Your task to perform on an android device: Clear the shopping cart on walmart. Add asus rog to the cart on walmart, then select checkout. Image 0: 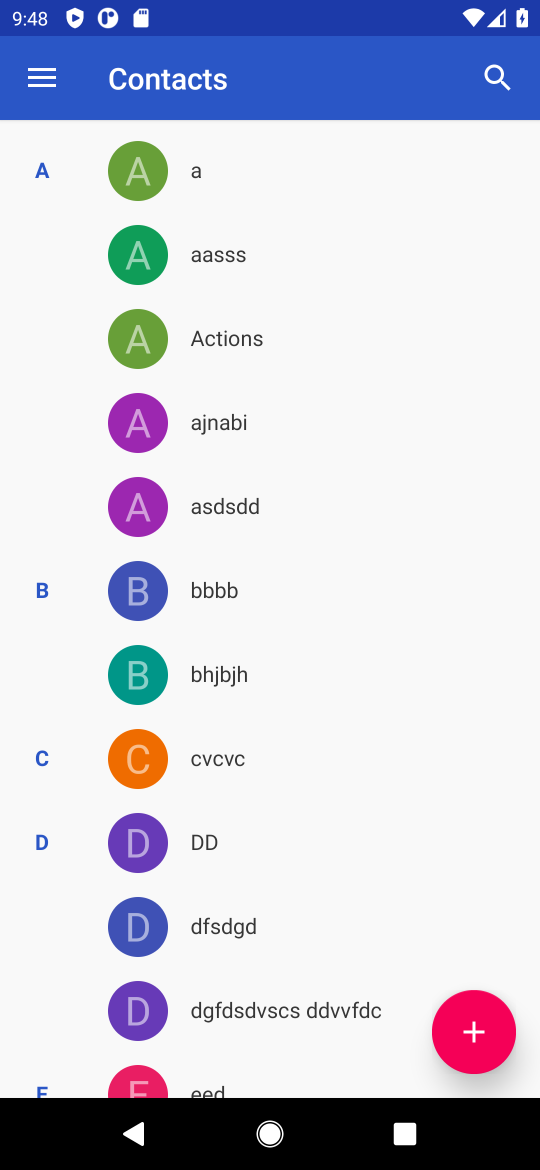
Step 0: press home button
Your task to perform on an android device: Clear the shopping cart on walmart. Add asus rog to the cart on walmart, then select checkout. Image 1: 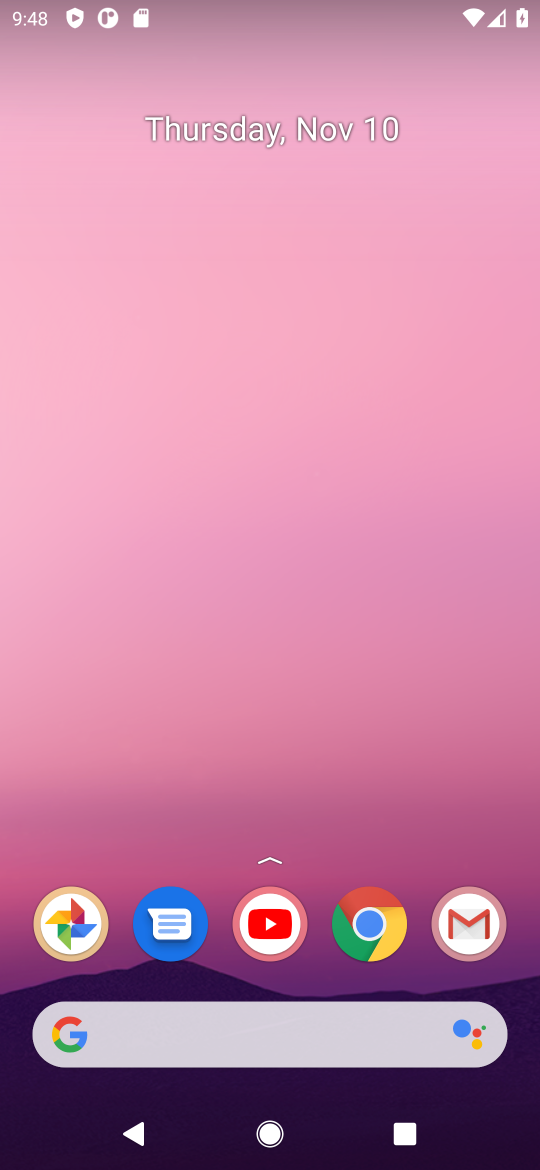
Step 1: click (351, 918)
Your task to perform on an android device: Clear the shopping cart on walmart. Add asus rog to the cart on walmart, then select checkout. Image 2: 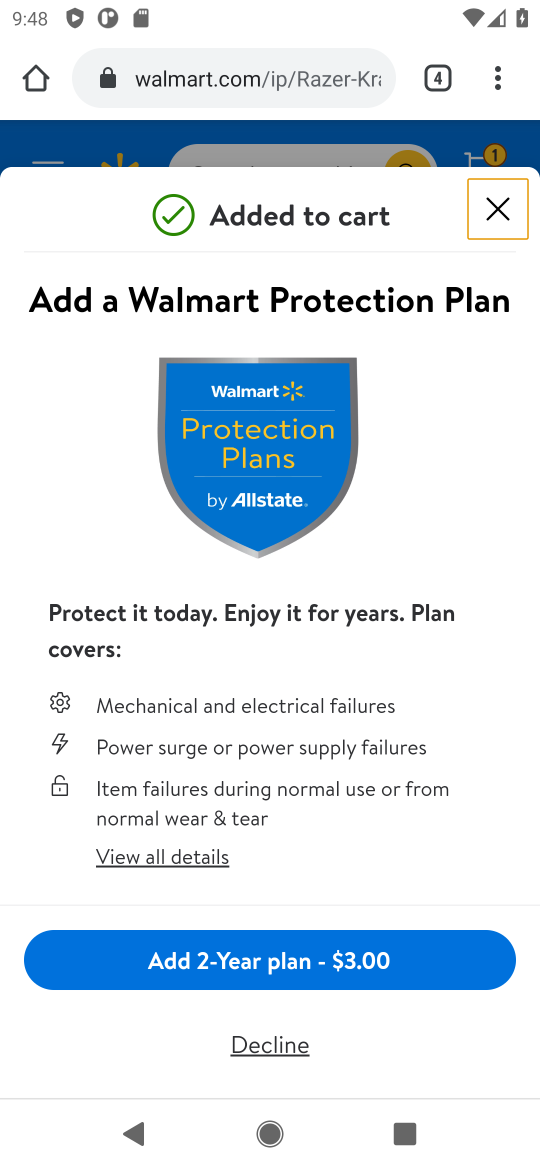
Step 2: click (517, 220)
Your task to perform on an android device: Clear the shopping cart on walmart. Add asus rog to the cart on walmart, then select checkout. Image 3: 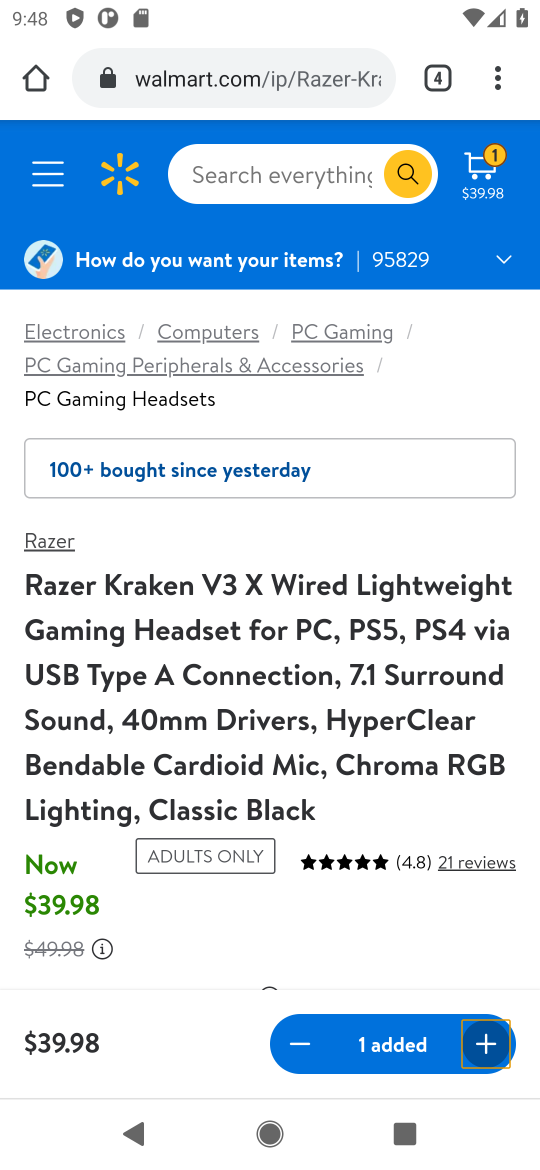
Step 3: click (485, 164)
Your task to perform on an android device: Clear the shopping cart on walmart. Add asus rog to the cart on walmart, then select checkout. Image 4: 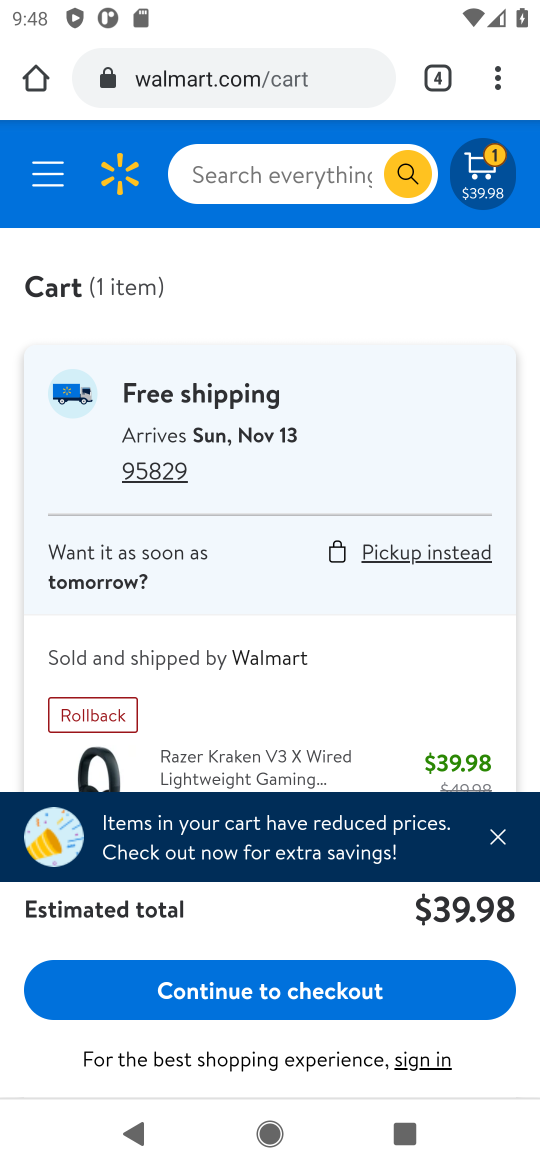
Step 4: click (492, 838)
Your task to perform on an android device: Clear the shopping cart on walmart. Add asus rog to the cart on walmart, then select checkout. Image 5: 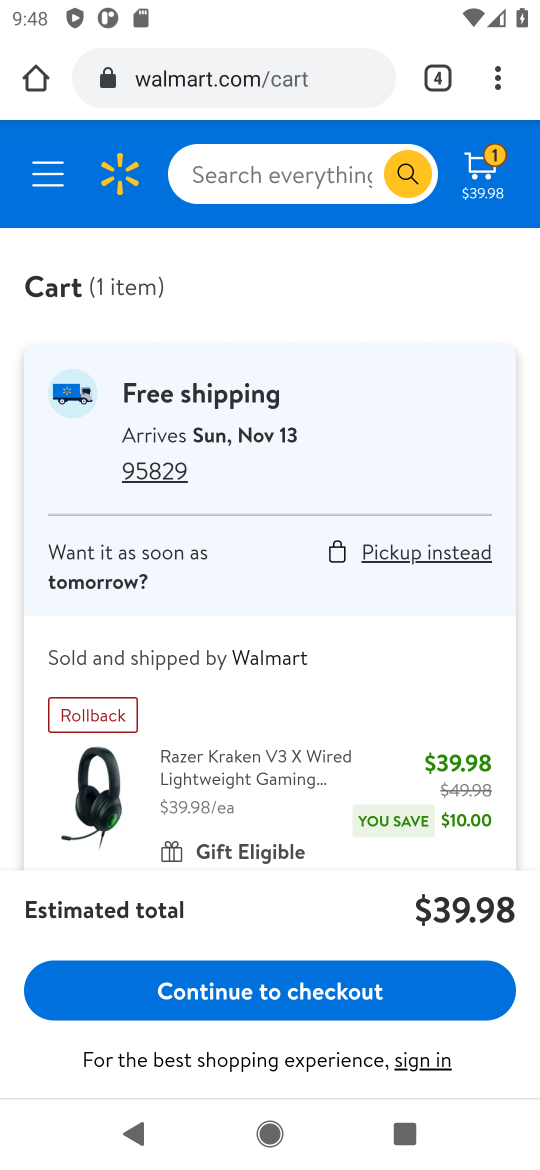
Step 5: drag from (120, 798) to (125, 377)
Your task to perform on an android device: Clear the shopping cart on walmart. Add asus rog to the cart on walmart, then select checkout. Image 6: 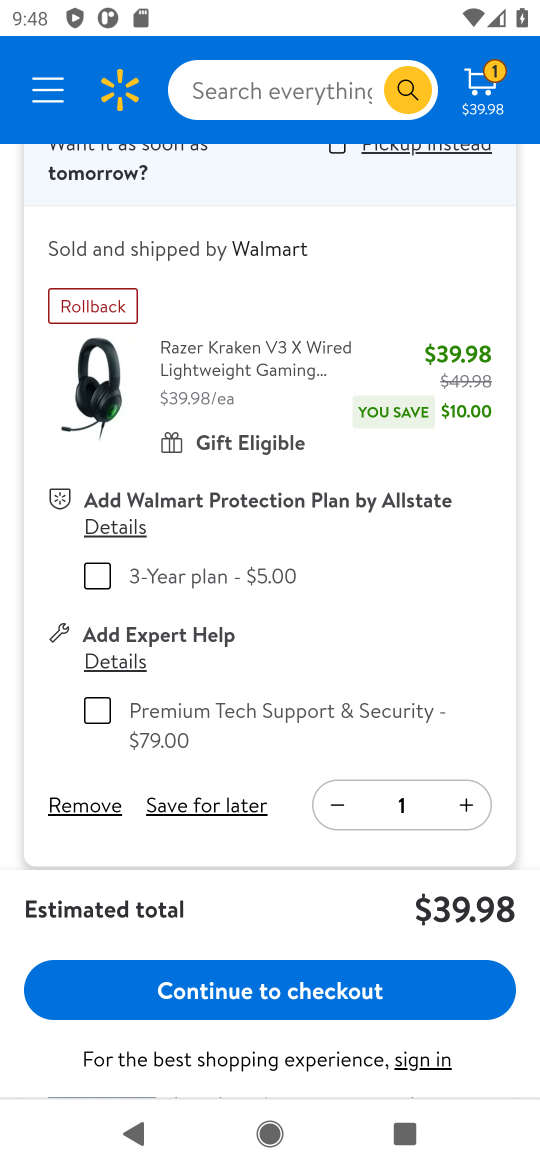
Step 6: click (67, 806)
Your task to perform on an android device: Clear the shopping cart on walmart. Add asus rog to the cart on walmart, then select checkout. Image 7: 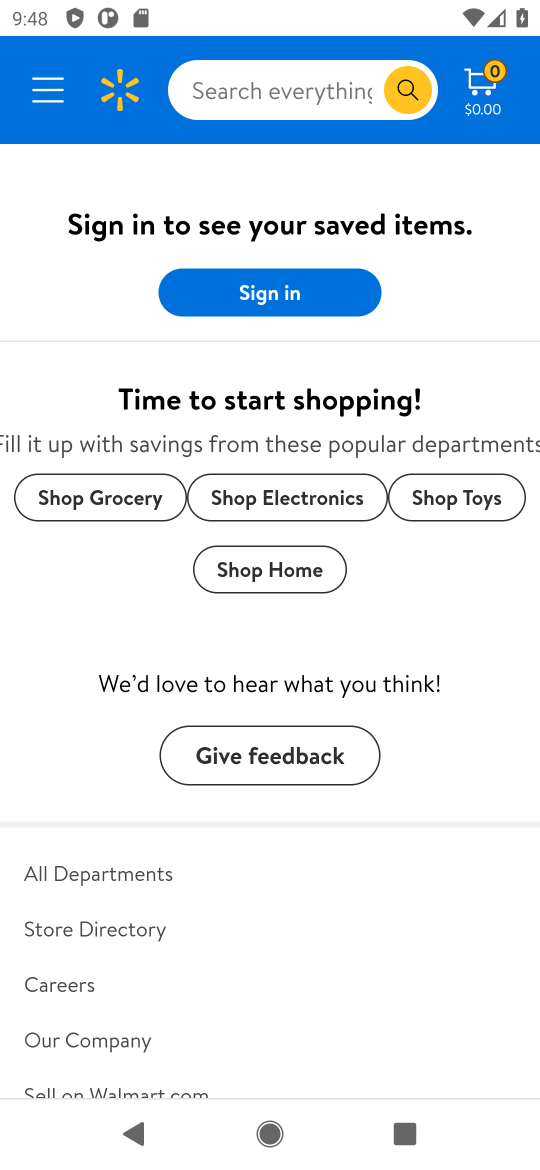
Step 7: click (263, 104)
Your task to perform on an android device: Clear the shopping cart on walmart. Add asus rog to the cart on walmart, then select checkout. Image 8: 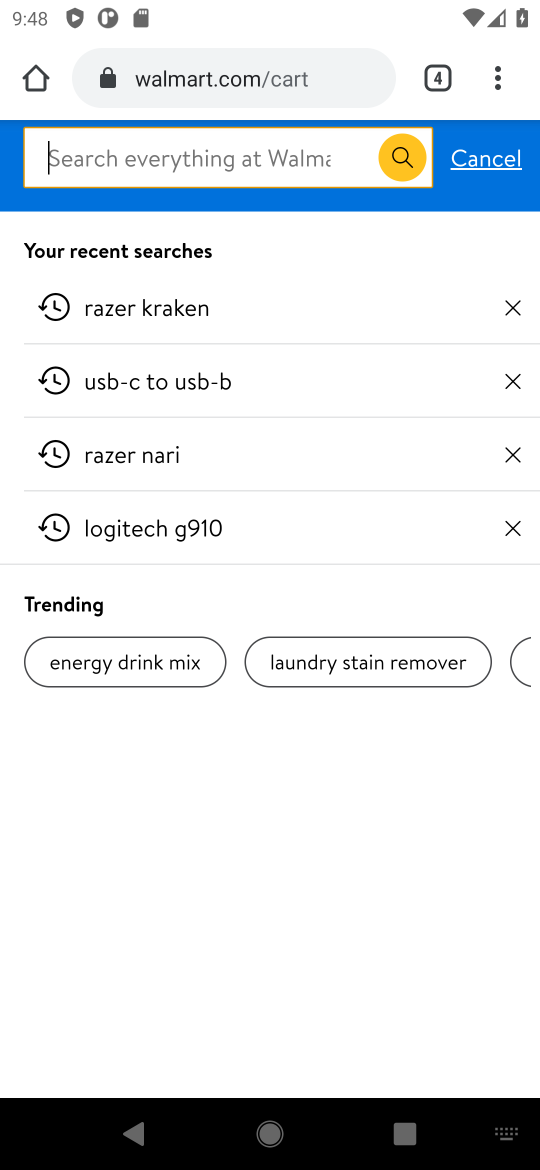
Step 8: type "asus rog"
Your task to perform on an android device: Clear the shopping cart on walmart. Add asus rog to the cart on walmart, then select checkout. Image 9: 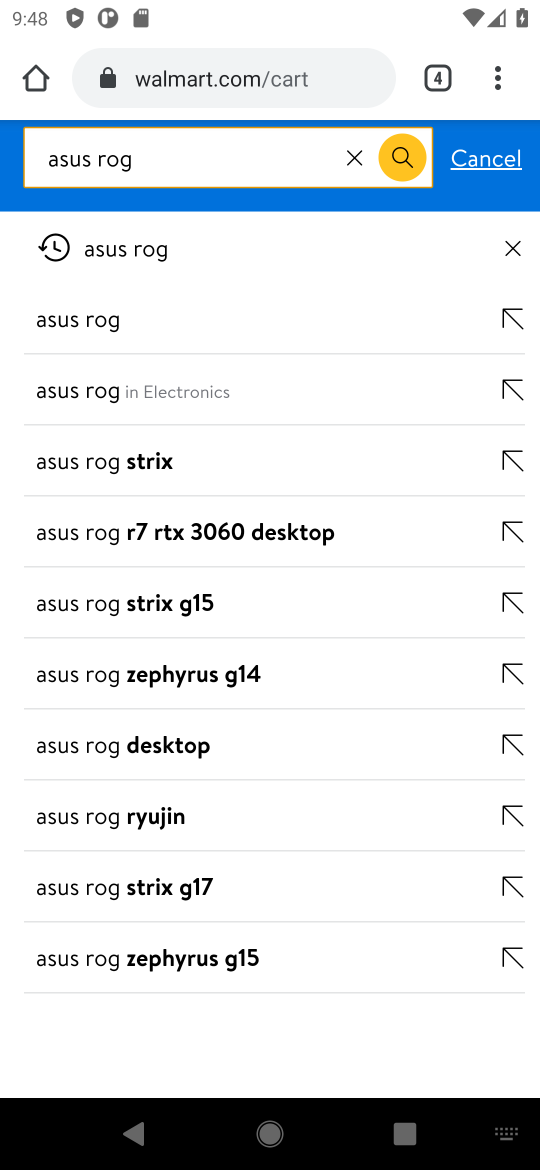
Step 9: click (105, 326)
Your task to perform on an android device: Clear the shopping cart on walmart. Add asus rog to the cart on walmart, then select checkout. Image 10: 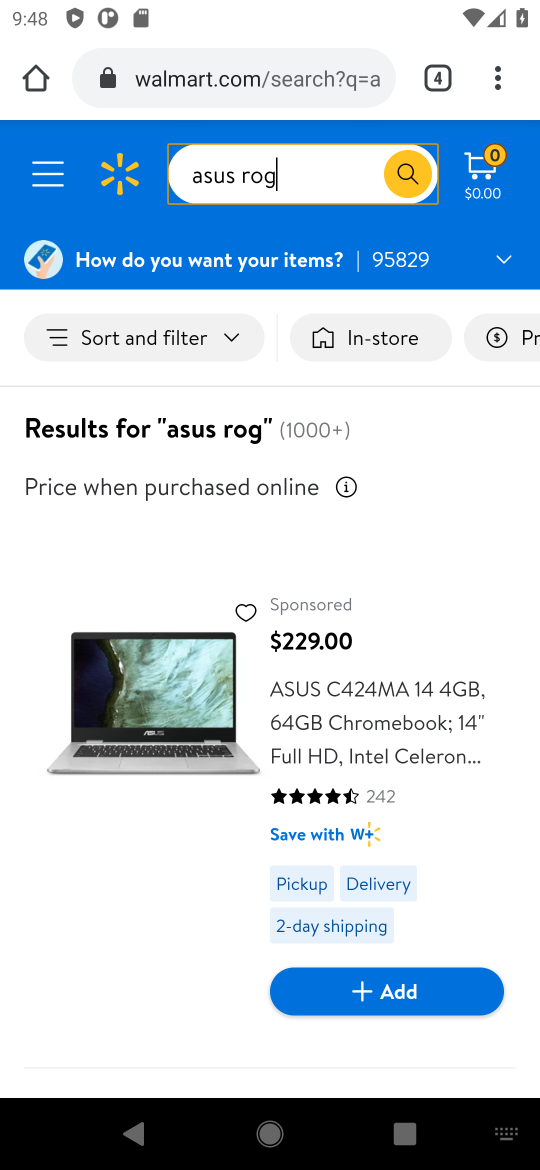
Step 10: drag from (206, 841) to (204, 455)
Your task to perform on an android device: Clear the shopping cart on walmart. Add asus rog to the cart on walmart, then select checkout. Image 11: 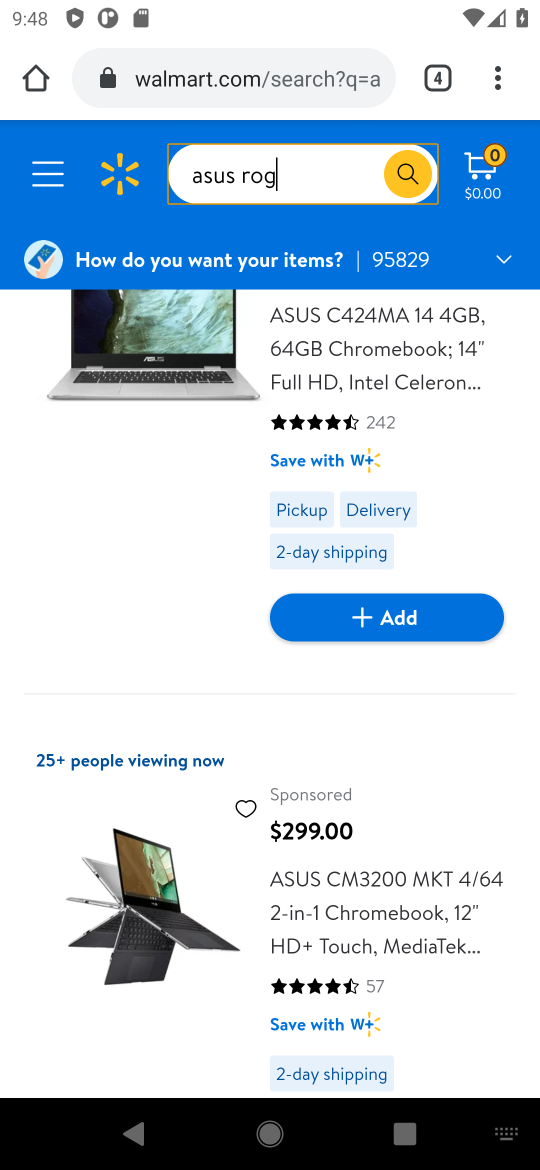
Step 11: drag from (224, 836) to (220, 325)
Your task to perform on an android device: Clear the shopping cart on walmart. Add asus rog to the cart on walmart, then select checkout. Image 12: 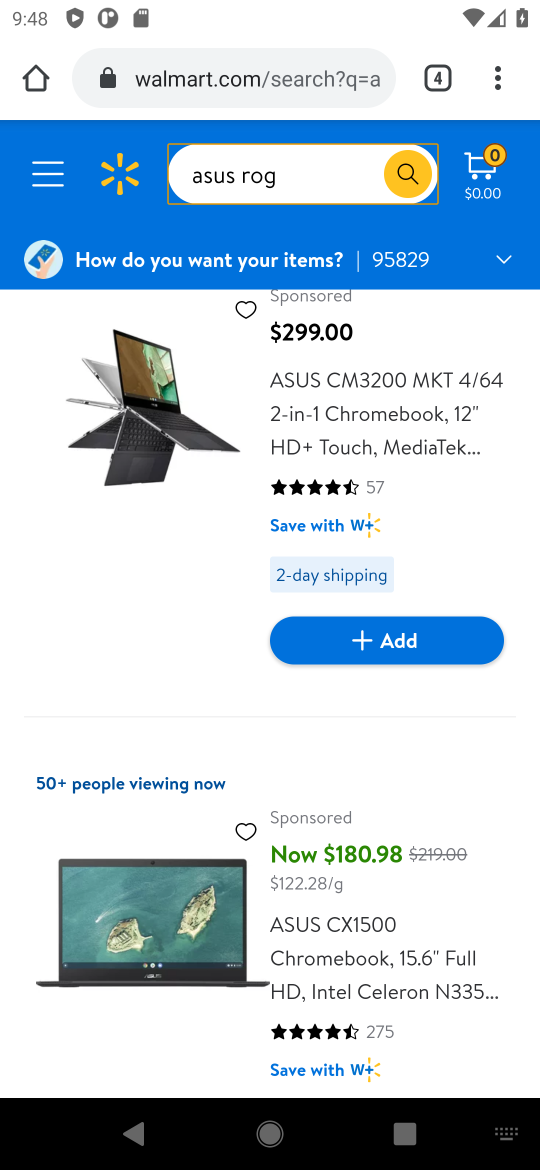
Step 12: drag from (203, 864) to (188, 350)
Your task to perform on an android device: Clear the shopping cart on walmart. Add asus rog to the cart on walmart, then select checkout. Image 13: 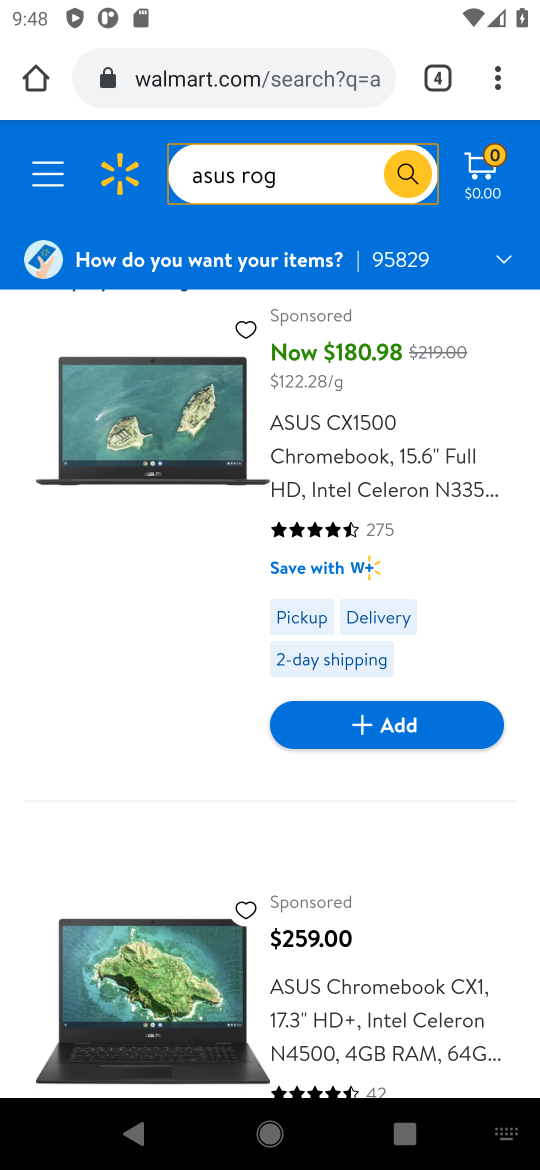
Step 13: drag from (173, 819) to (173, 413)
Your task to perform on an android device: Clear the shopping cart on walmart. Add asus rog to the cart on walmart, then select checkout. Image 14: 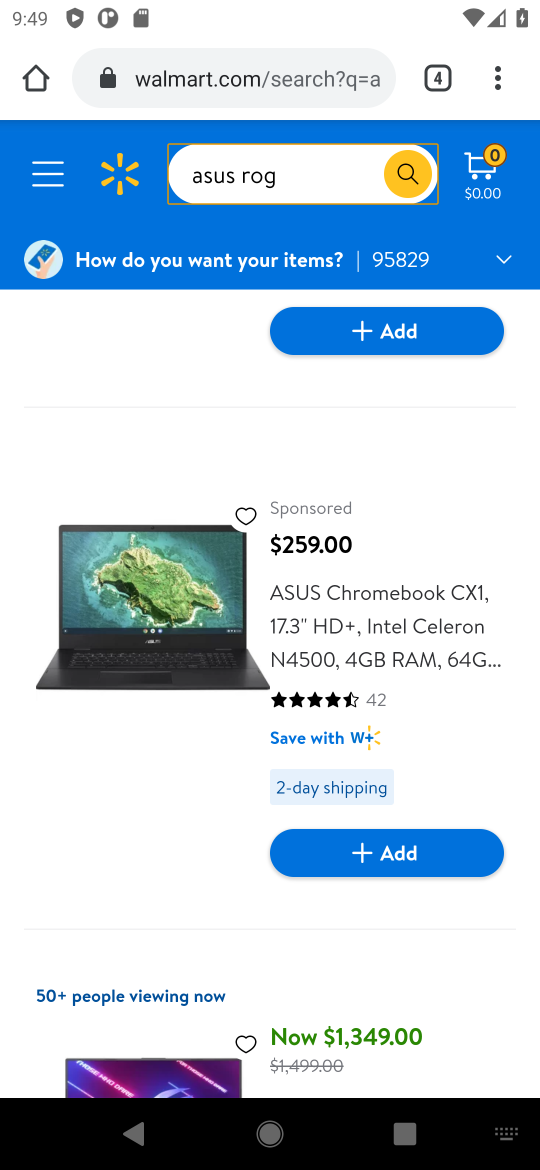
Step 14: drag from (169, 827) to (174, 307)
Your task to perform on an android device: Clear the shopping cart on walmart. Add asus rog to the cart on walmart, then select checkout. Image 15: 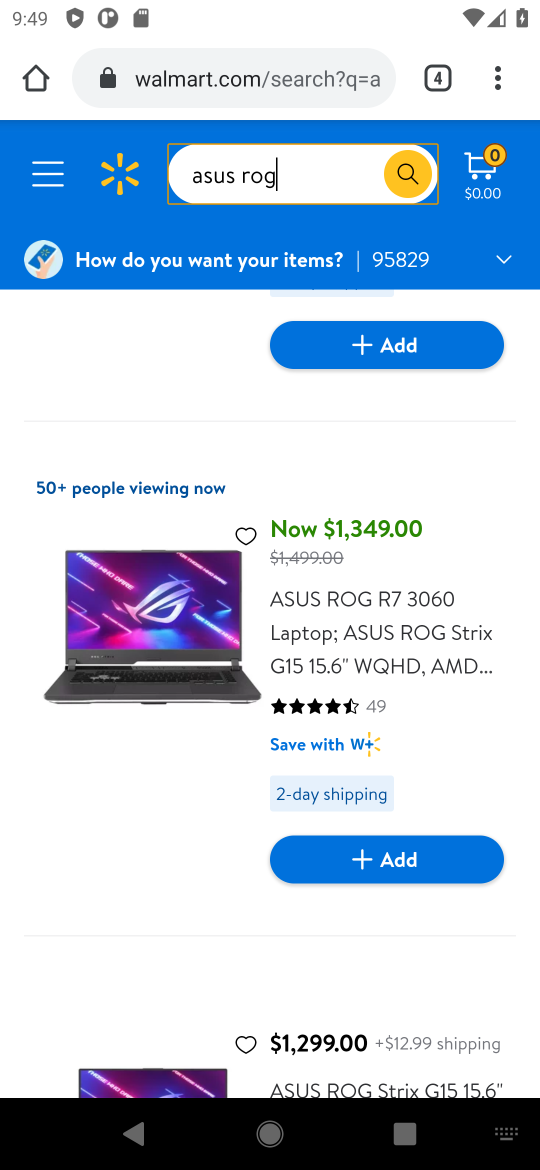
Step 15: click (361, 854)
Your task to perform on an android device: Clear the shopping cart on walmart. Add asus rog to the cart on walmart, then select checkout. Image 16: 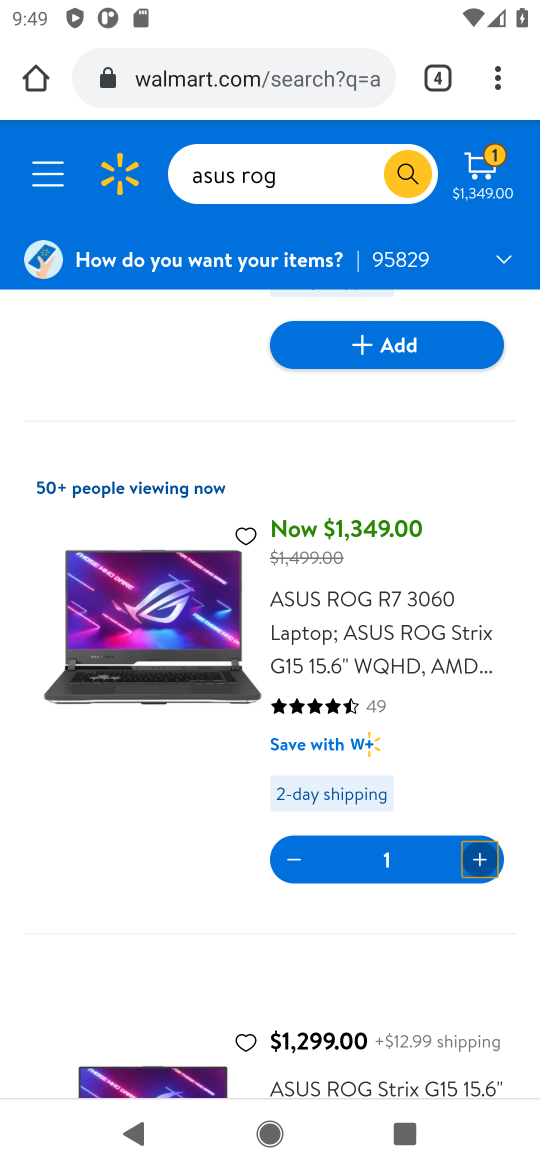
Step 16: click (478, 181)
Your task to perform on an android device: Clear the shopping cart on walmart. Add asus rog to the cart on walmart, then select checkout. Image 17: 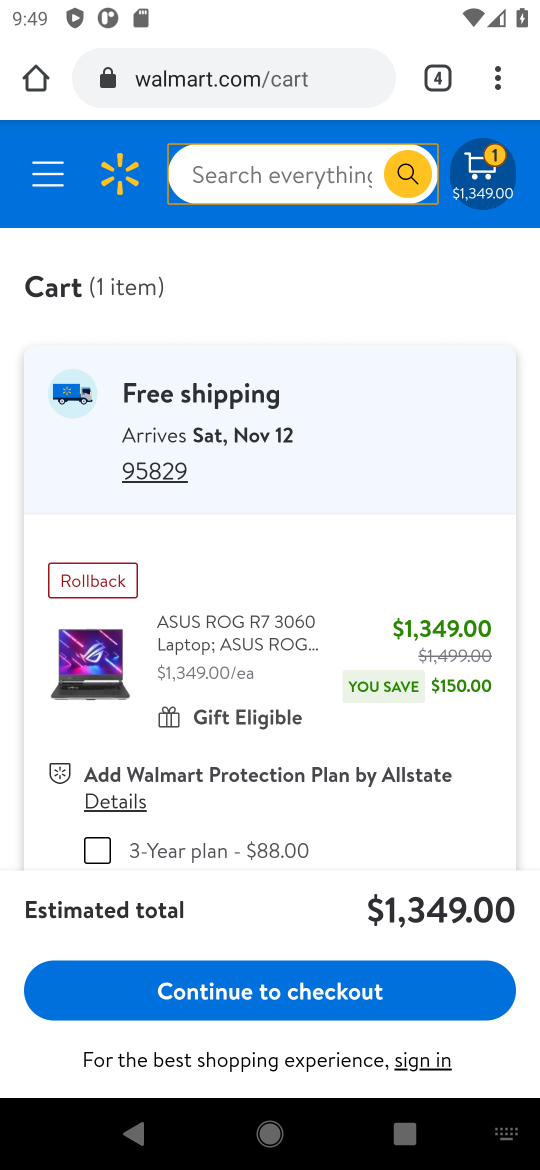
Step 17: click (215, 994)
Your task to perform on an android device: Clear the shopping cart on walmart. Add asus rog to the cart on walmart, then select checkout. Image 18: 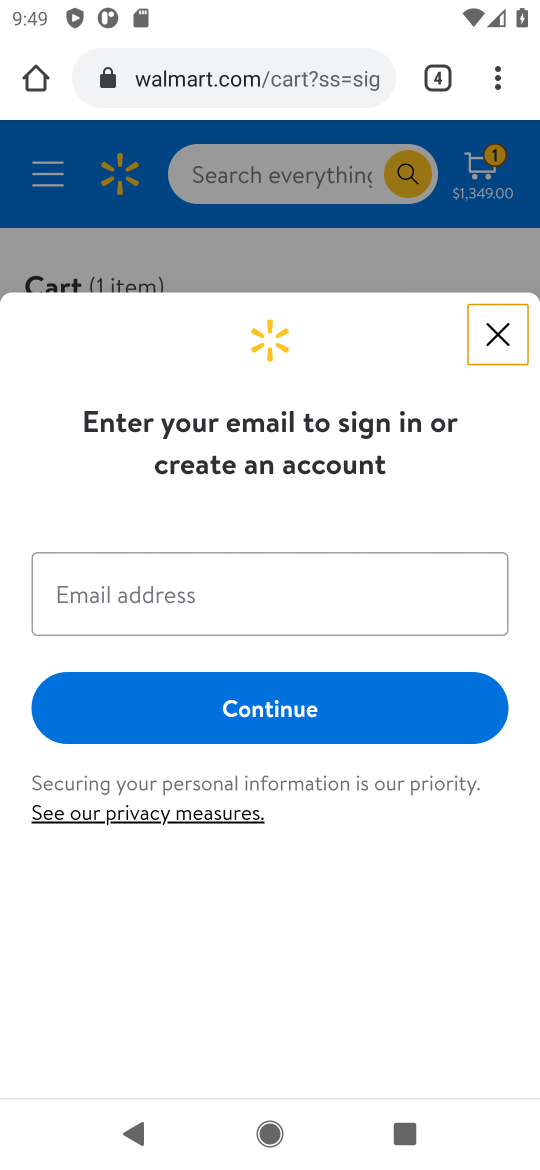
Step 18: task complete